Your task to perform on an android device: Open display settings Image 0: 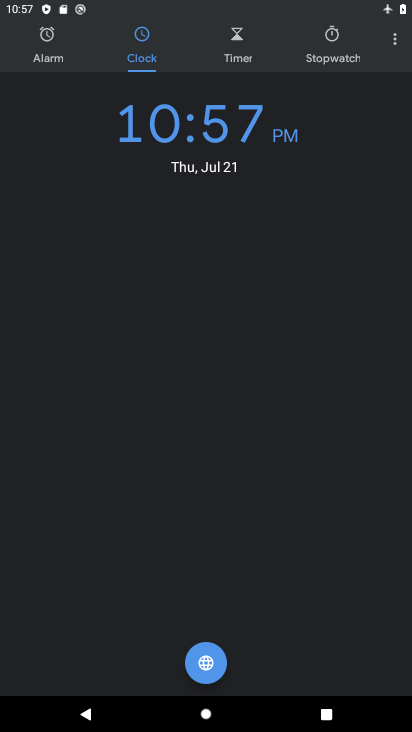
Step 0: press home button
Your task to perform on an android device: Open display settings Image 1: 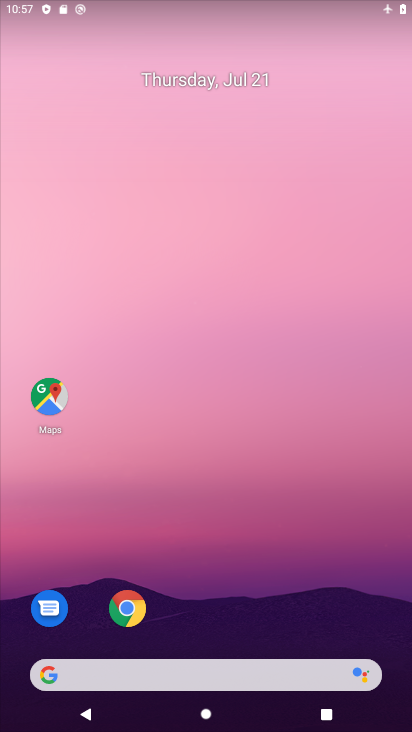
Step 1: drag from (331, 608) to (263, 196)
Your task to perform on an android device: Open display settings Image 2: 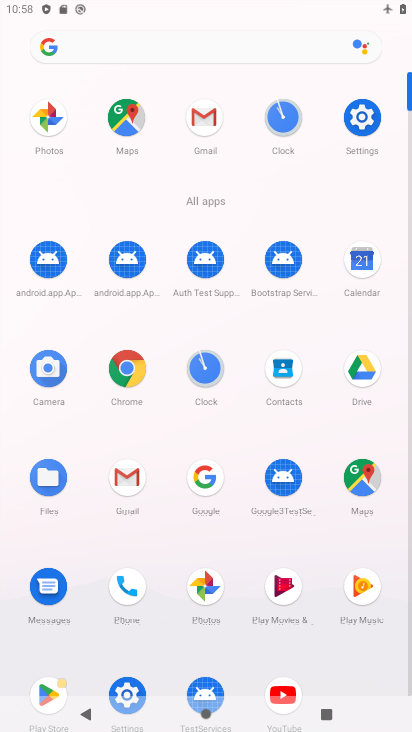
Step 2: click (125, 681)
Your task to perform on an android device: Open display settings Image 3: 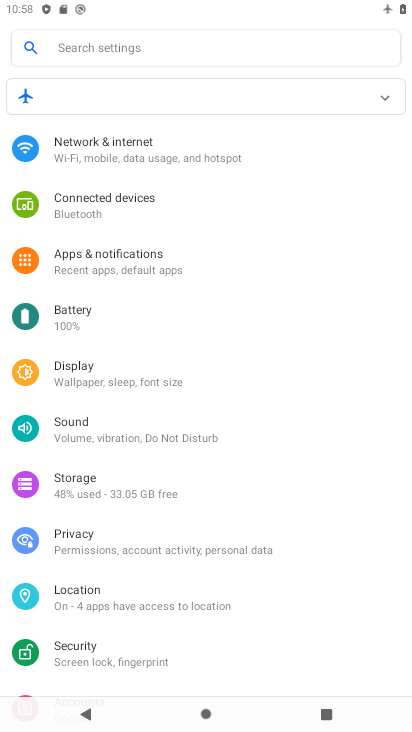
Step 3: click (89, 376)
Your task to perform on an android device: Open display settings Image 4: 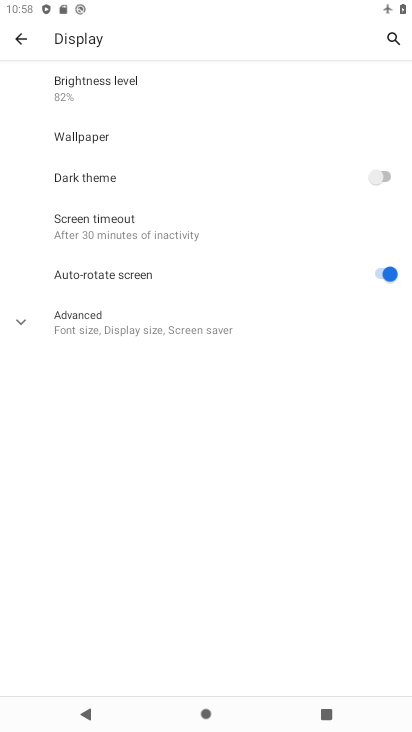
Step 4: task complete